Your task to perform on an android device: Open Maps and search for coffee Image 0: 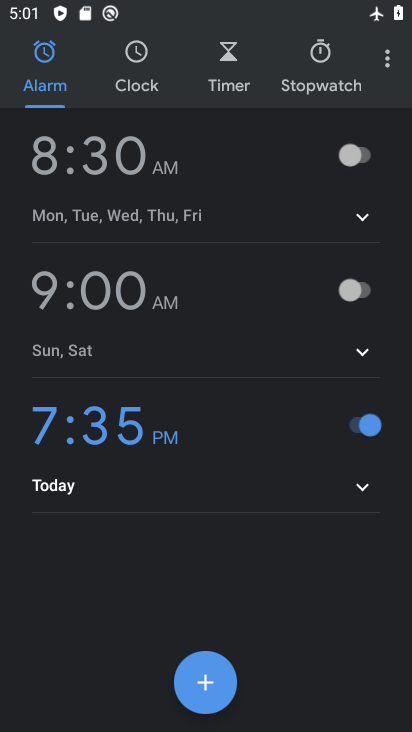
Step 0: press home button
Your task to perform on an android device: Open Maps and search for coffee Image 1: 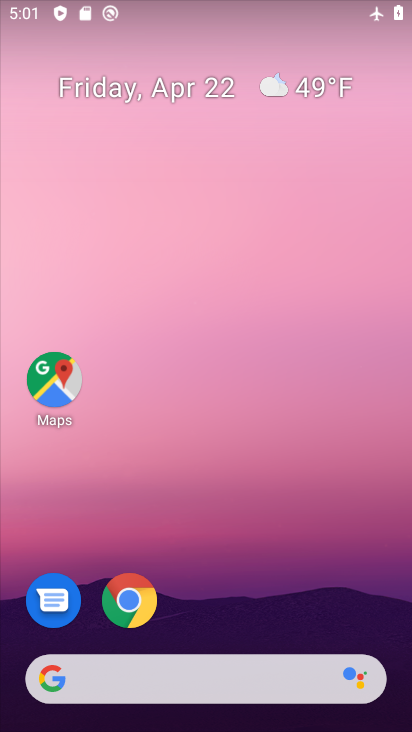
Step 1: click (50, 381)
Your task to perform on an android device: Open Maps and search for coffee Image 2: 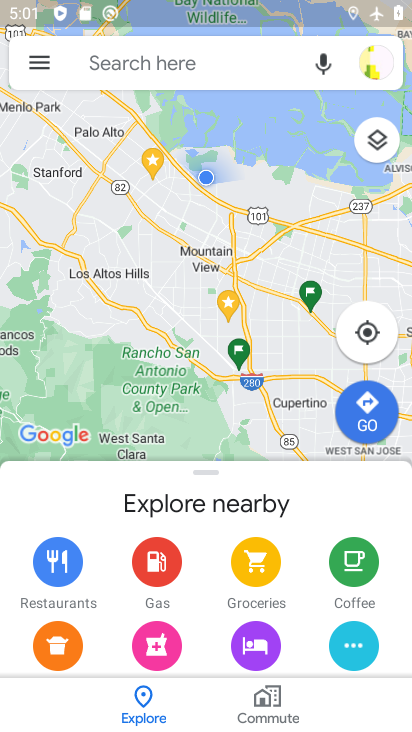
Step 2: click (205, 61)
Your task to perform on an android device: Open Maps and search for coffee Image 3: 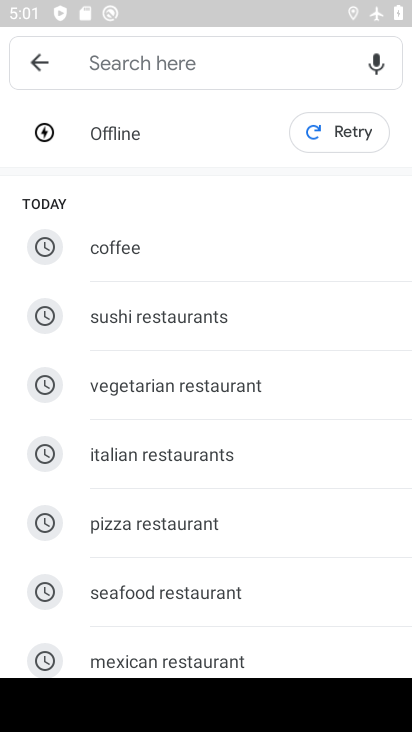
Step 3: type "coffee"
Your task to perform on an android device: Open Maps and search for coffee Image 4: 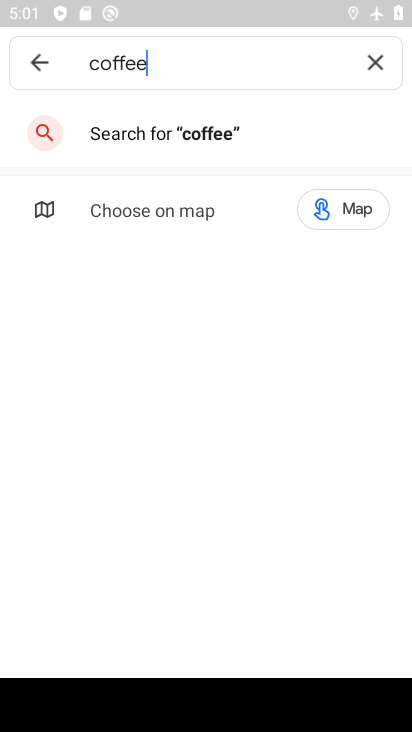
Step 4: task complete